Your task to perform on an android device: check battery use Image 0: 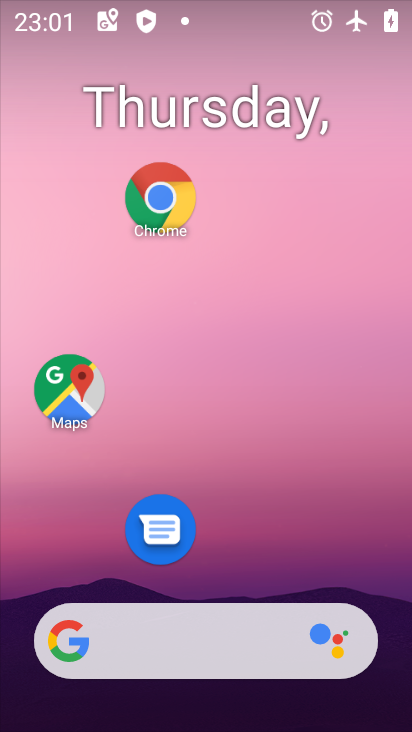
Step 0: drag from (244, 500) to (175, 134)
Your task to perform on an android device: check battery use Image 1: 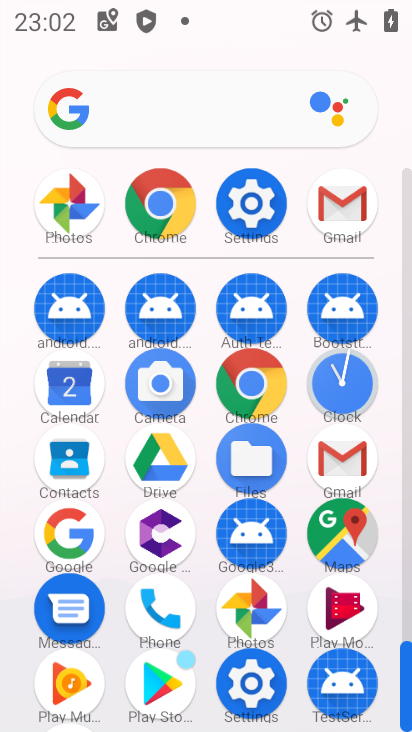
Step 1: click (255, 200)
Your task to perform on an android device: check battery use Image 2: 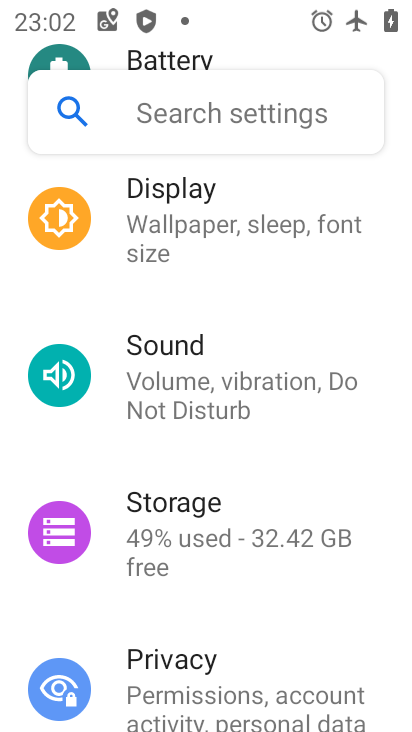
Step 2: drag from (255, 279) to (243, 606)
Your task to perform on an android device: check battery use Image 3: 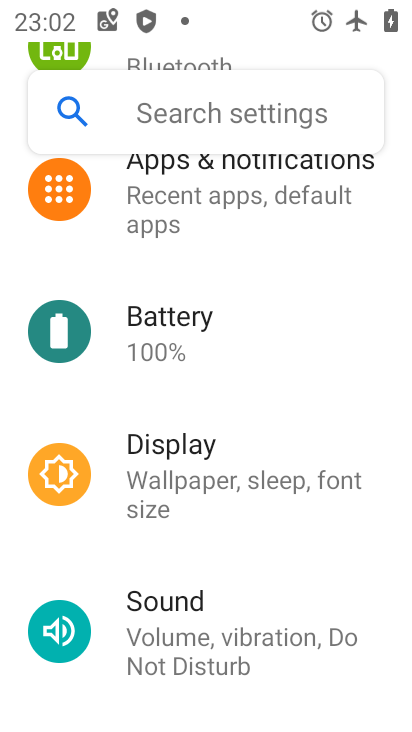
Step 3: click (184, 319)
Your task to perform on an android device: check battery use Image 4: 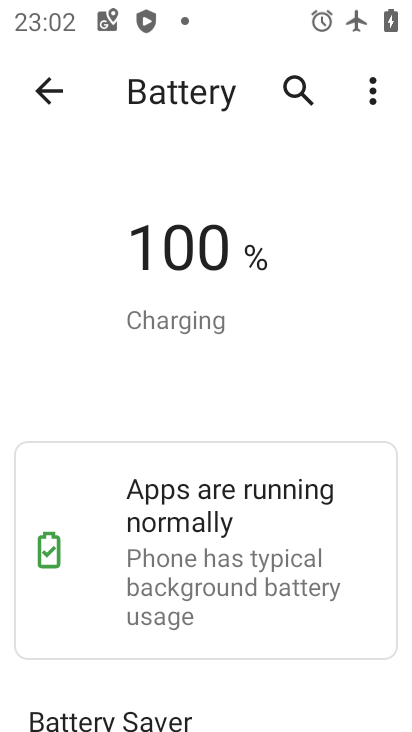
Step 4: task complete